Your task to perform on an android device: Go to Yahoo.com Image 0: 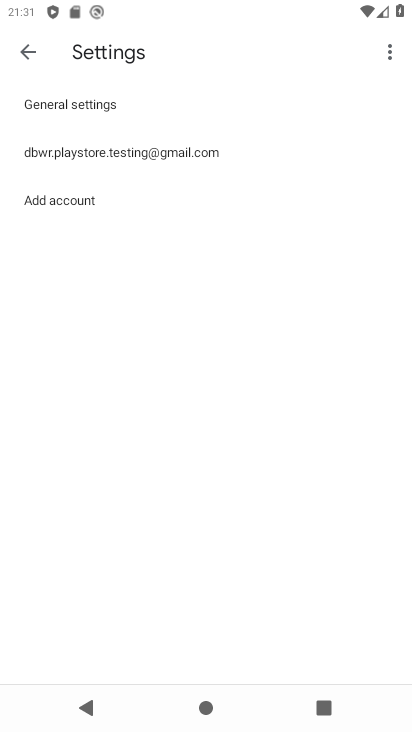
Step 0: press home button
Your task to perform on an android device: Go to Yahoo.com Image 1: 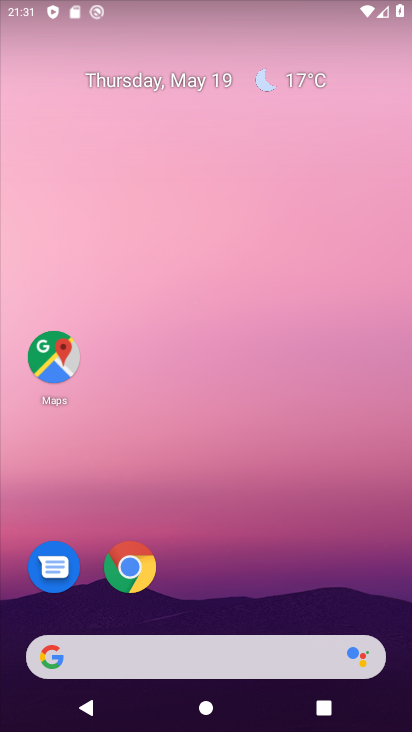
Step 1: drag from (240, 592) to (163, 57)
Your task to perform on an android device: Go to Yahoo.com Image 2: 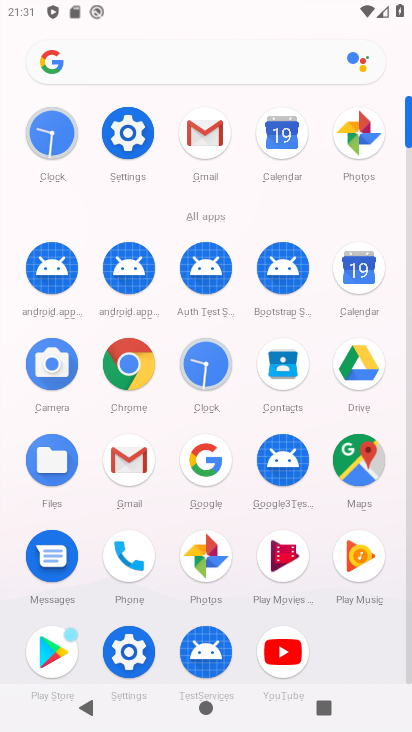
Step 2: click (120, 386)
Your task to perform on an android device: Go to Yahoo.com Image 3: 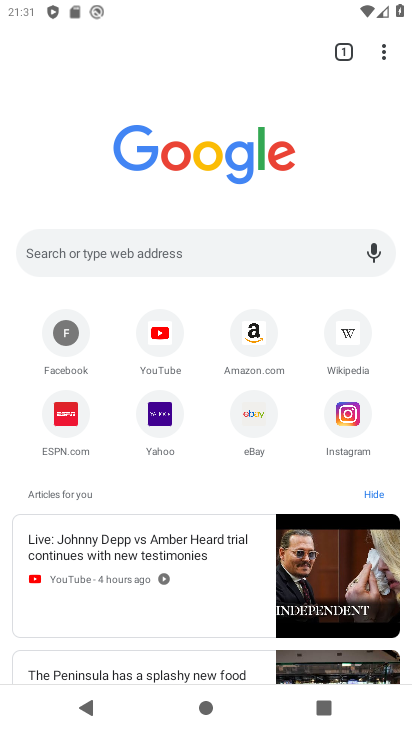
Step 3: click (163, 418)
Your task to perform on an android device: Go to Yahoo.com Image 4: 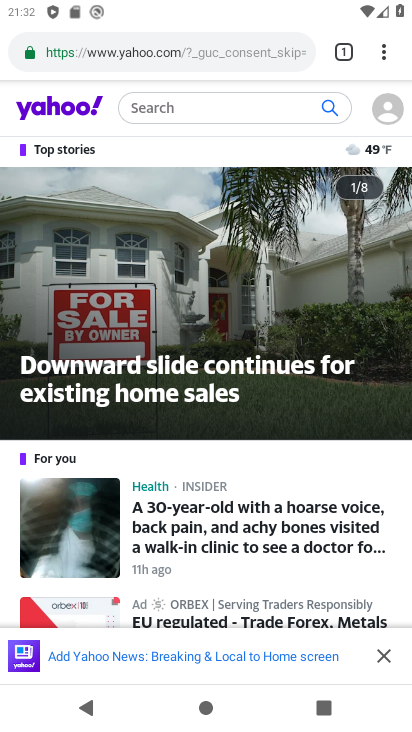
Step 4: task complete